Your task to perform on an android device: change notification settings in the gmail app Image 0: 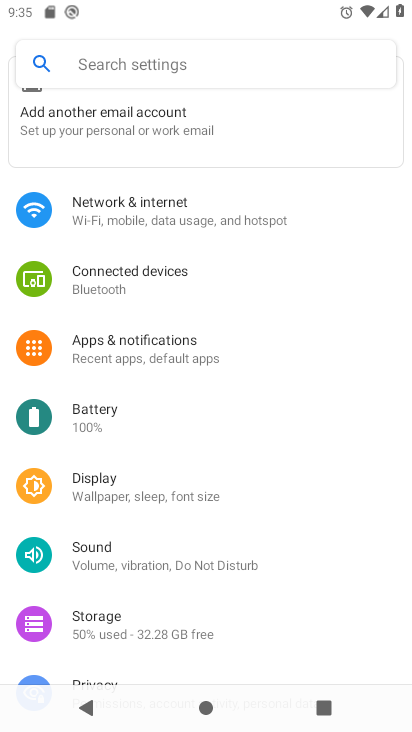
Step 0: click (191, 348)
Your task to perform on an android device: change notification settings in the gmail app Image 1: 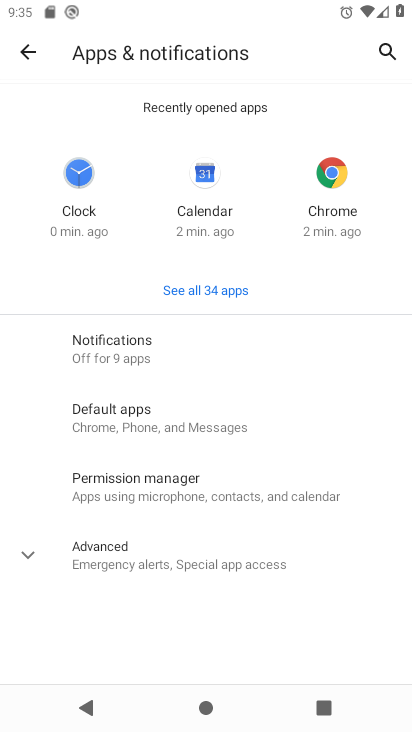
Step 1: click (241, 291)
Your task to perform on an android device: change notification settings in the gmail app Image 2: 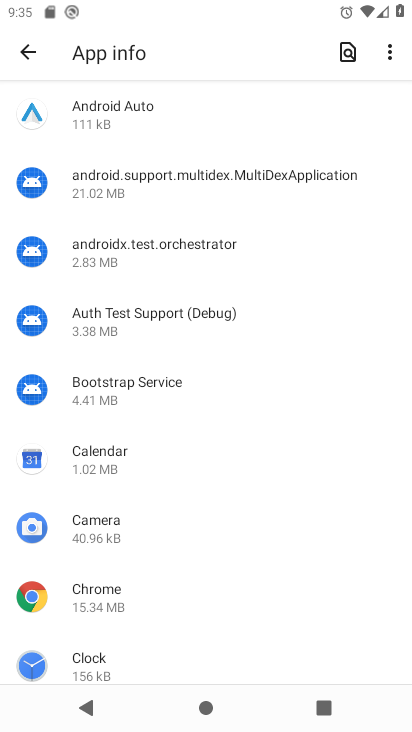
Step 2: drag from (206, 576) to (235, 133)
Your task to perform on an android device: change notification settings in the gmail app Image 3: 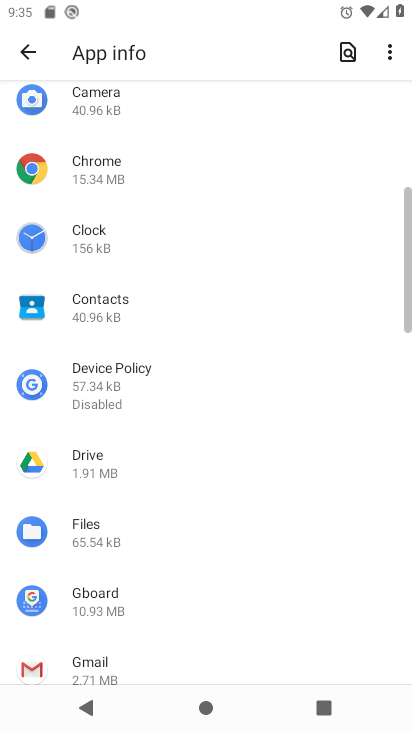
Step 3: drag from (175, 610) to (217, 172)
Your task to perform on an android device: change notification settings in the gmail app Image 4: 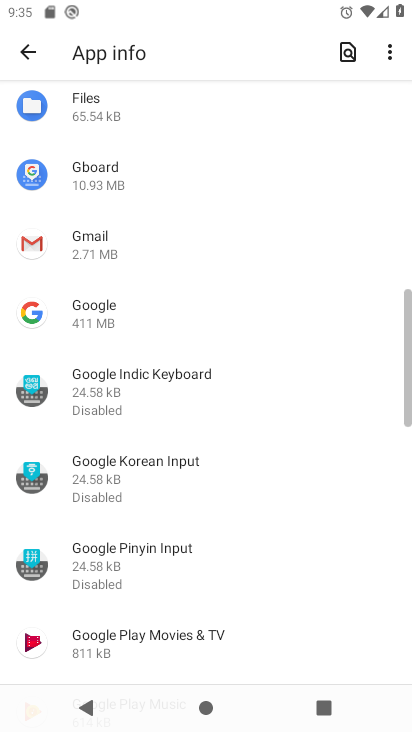
Step 4: click (134, 245)
Your task to perform on an android device: change notification settings in the gmail app Image 5: 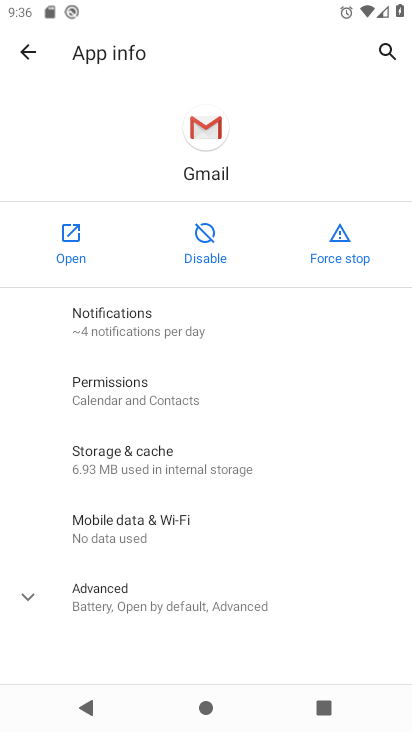
Step 5: click (151, 324)
Your task to perform on an android device: change notification settings in the gmail app Image 6: 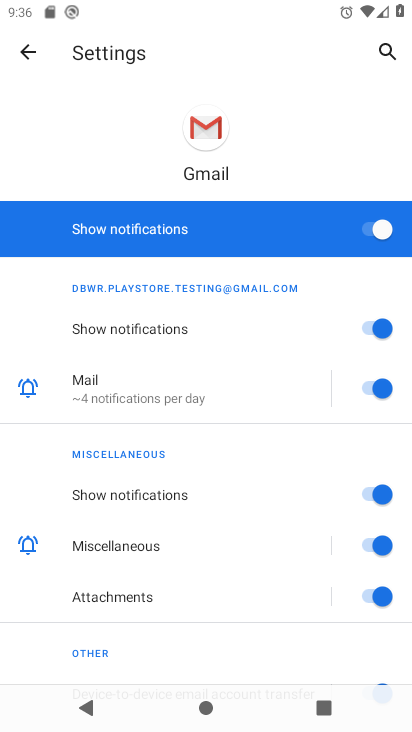
Step 6: click (379, 221)
Your task to perform on an android device: change notification settings in the gmail app Image 7: 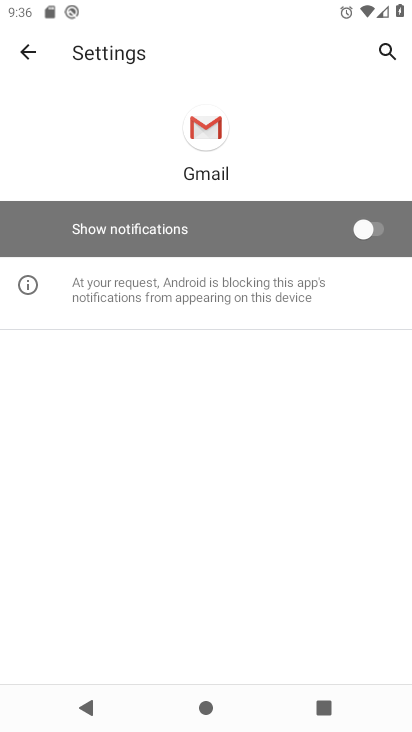
Step 7: task complete